Your task to perform on an android device: turn off picture-in-picture Image 0: 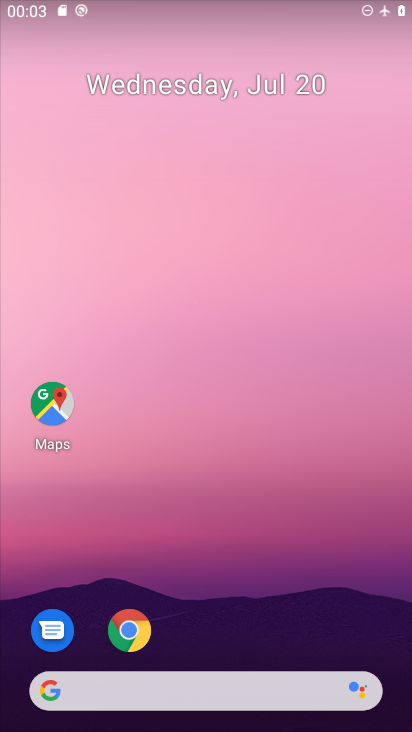
Step 0: click (129, 618)
Your task to perform on an android device: turn off picture-in-picture Image 1: 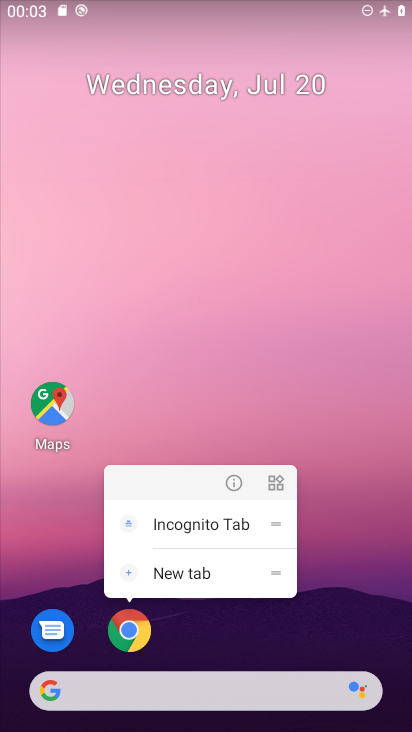
Step 1: click (227, 484)
Your task to perform on an android device: turn off picture-in-picture Image 2: 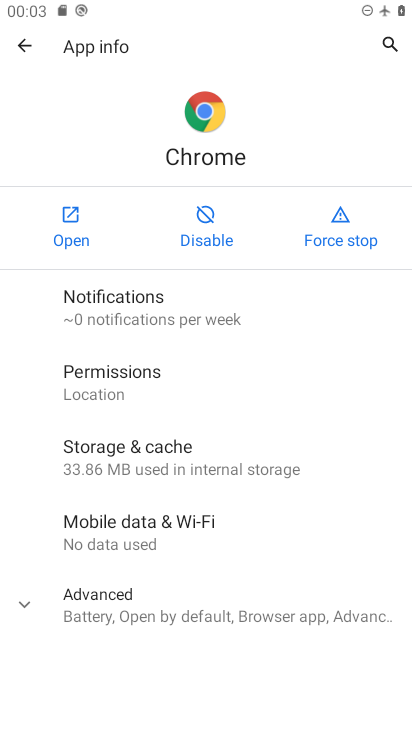
Step 2: click (172, 604)
Your task to perform on an android device: turn off picture-in-picture Image 3: 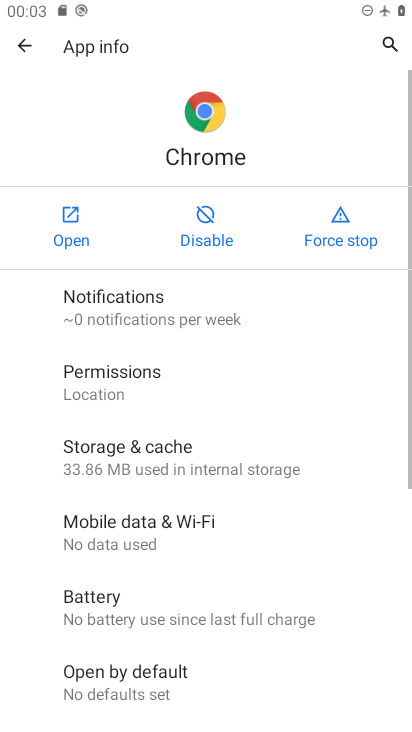
Step 3: drag from (201, 649) to (215, 332)
Your task to perform on an android device: turn off picture-in-picture Image 4: 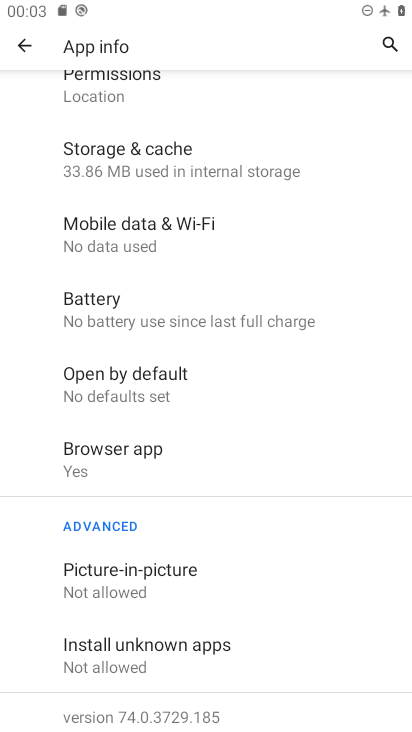
Step 4: click (169, 575)
Your task to perform on an android device: turn off picture-in-picture Image 5: 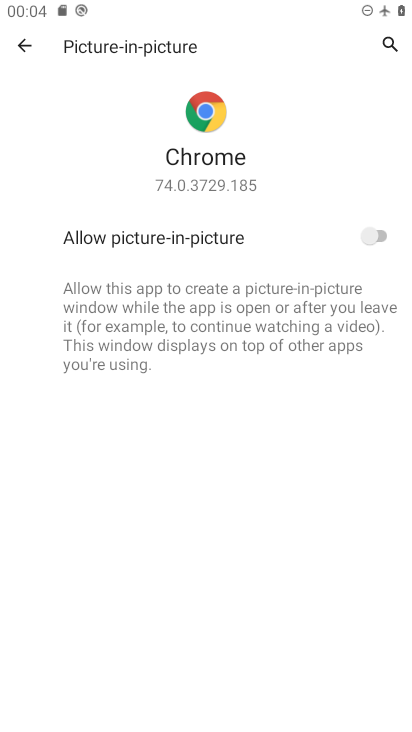
Step 5: task complete